Your task to perform on an android device: Add bose soundlink mini to the cart on bestbuy Image 0: 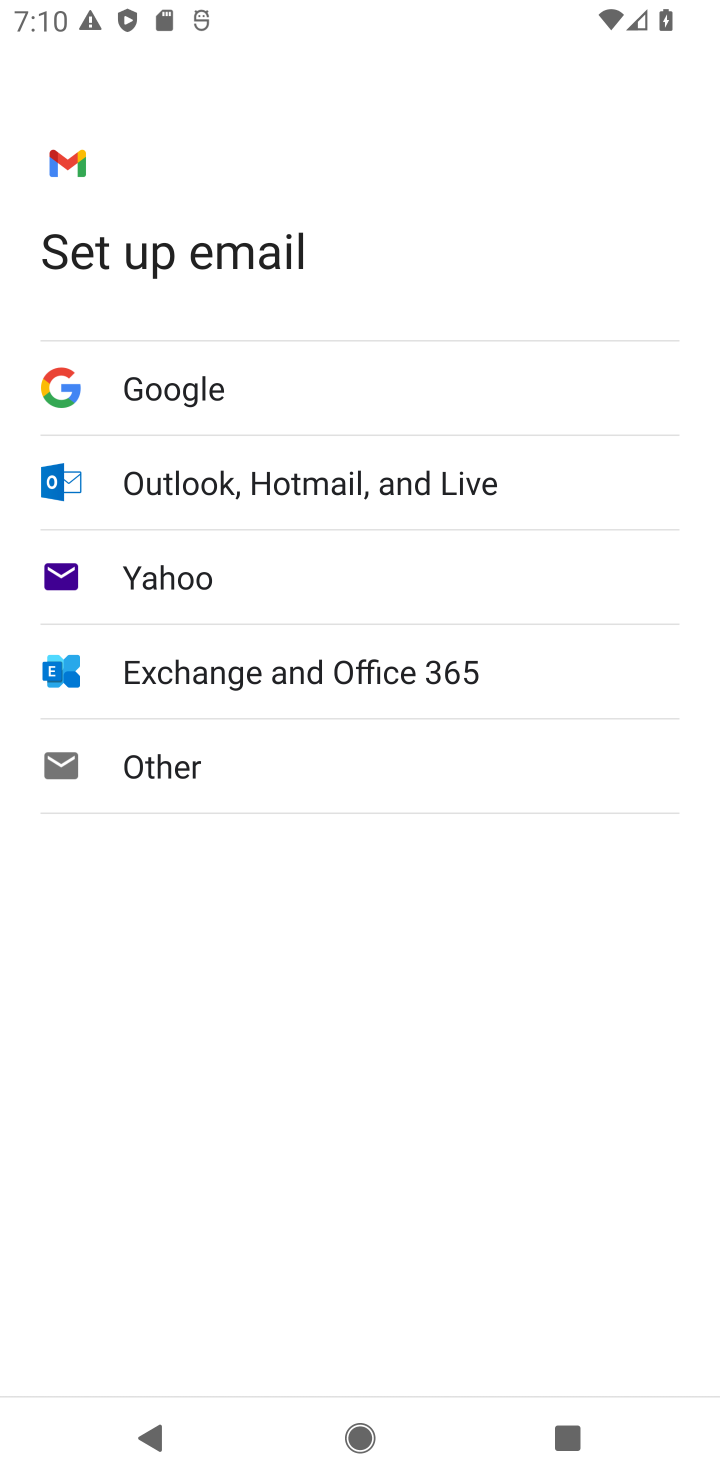
Step 0: press home button
Your task to perform on an android device: Add bose soundlink mini to the cart on bestbuy Image 1: 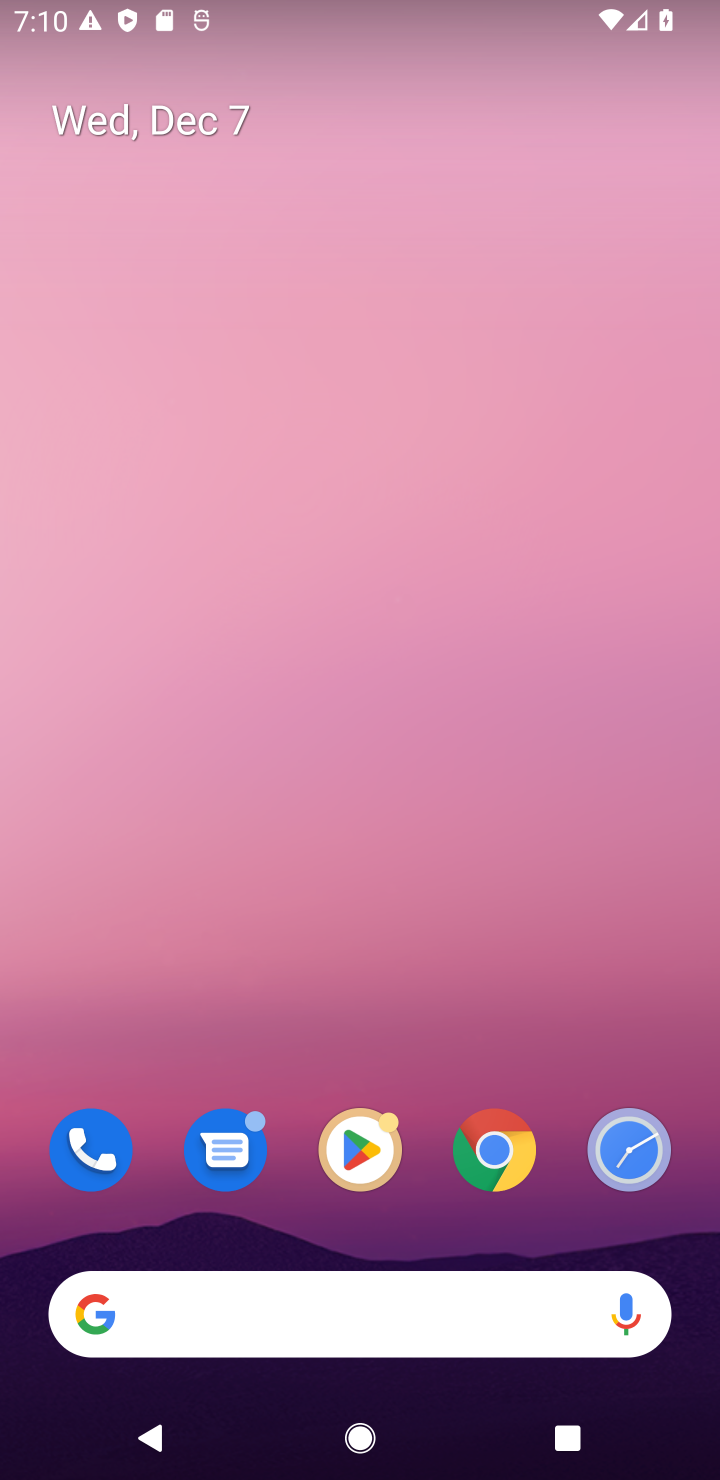
Step 1: click (490, 1150)
Your task to perform on an android device: Add bose soundlink mini to the cart on bestbuy Image 2: 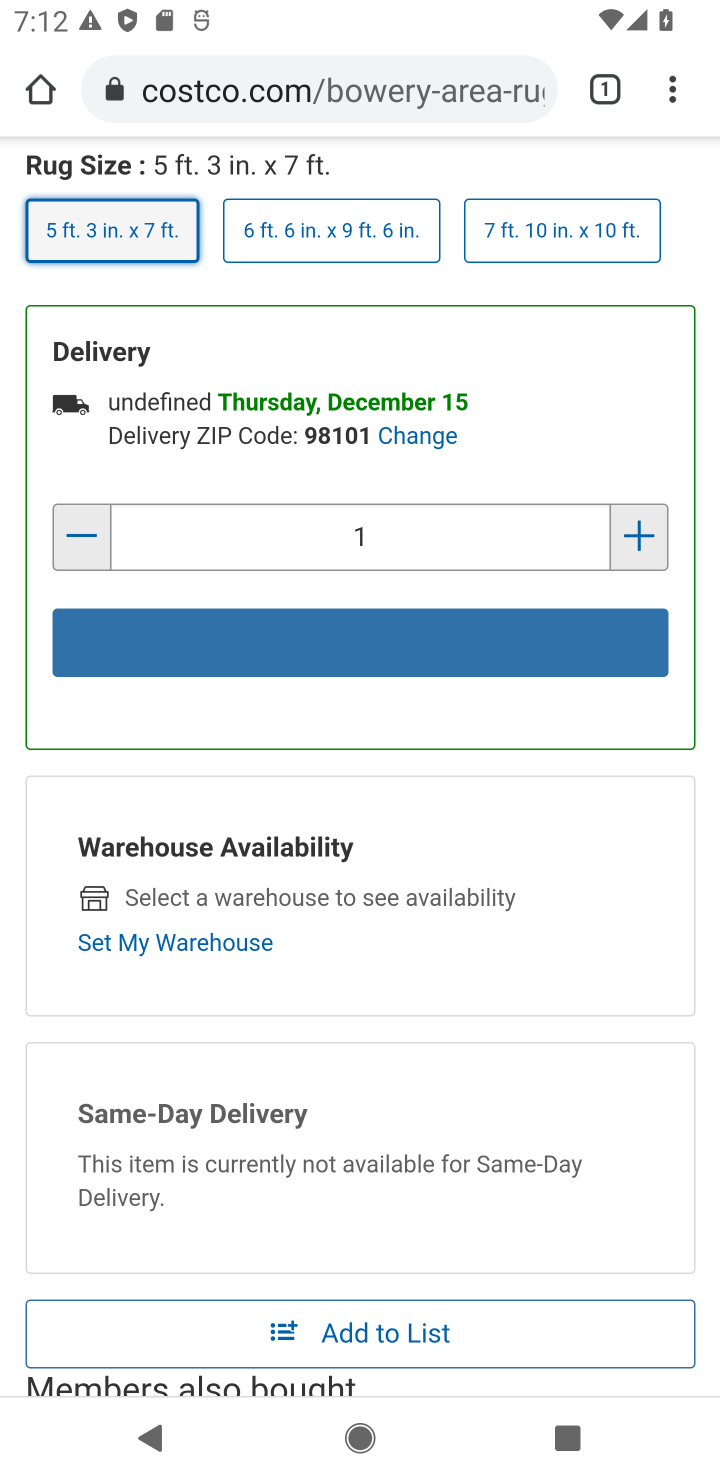
Step 2: click (334, 84)
Your task to perform on an android device: Add bose soundlink mini to the cart on bestbuy Image 3: 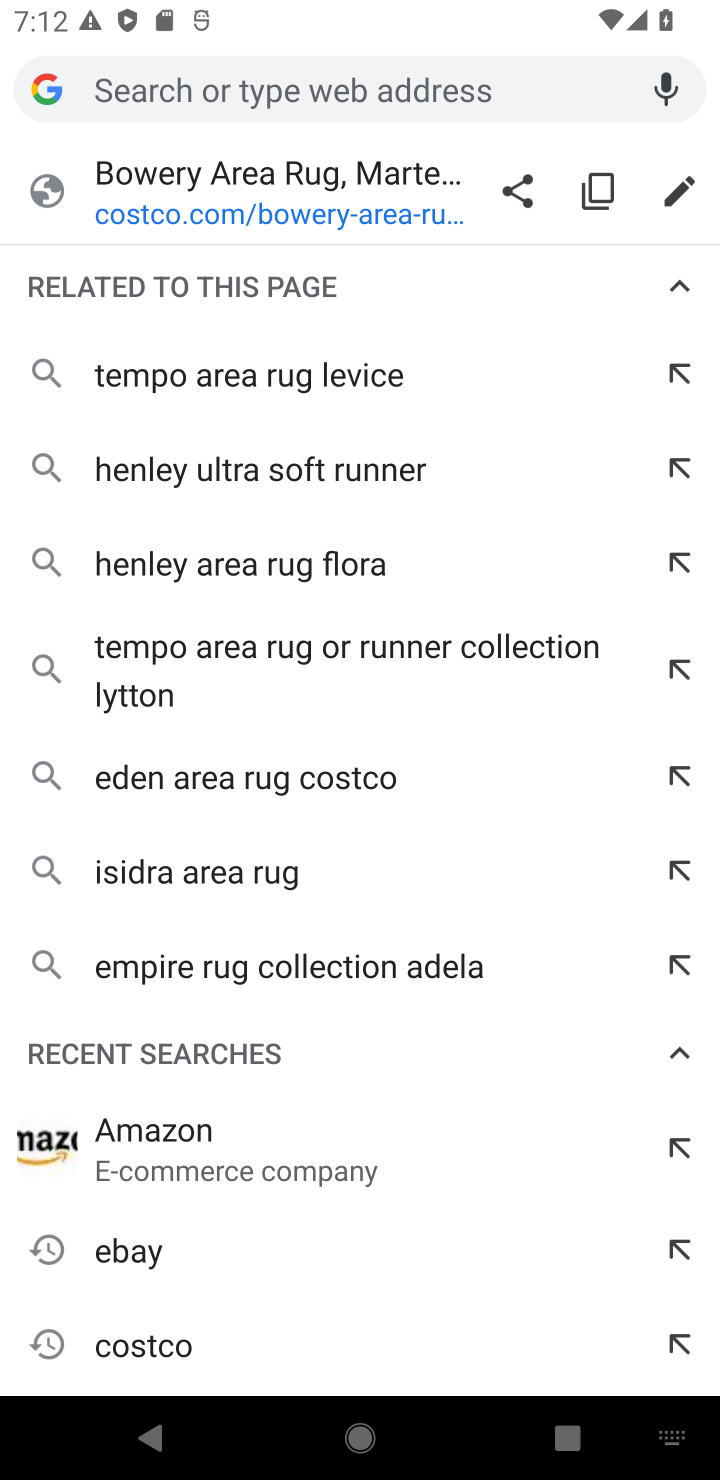
Step 3: type "bestbuy"
Your task to perform on an android device: Add bose soundlink mini to the cart on bestbuy Image 4: 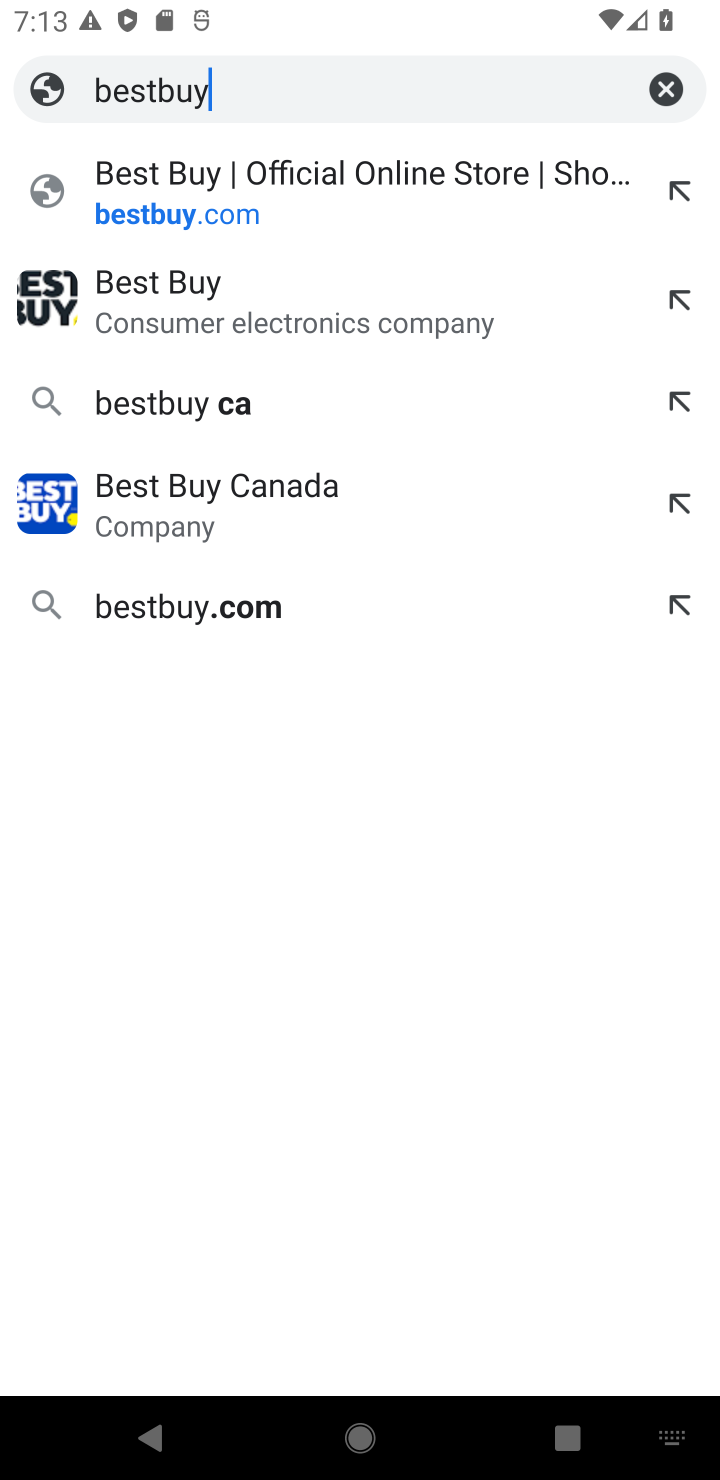
Step 4: click (131, 203)
Your task to perform on an android device: Add bose soundlink mini to the cart on bestbuy Image 5: 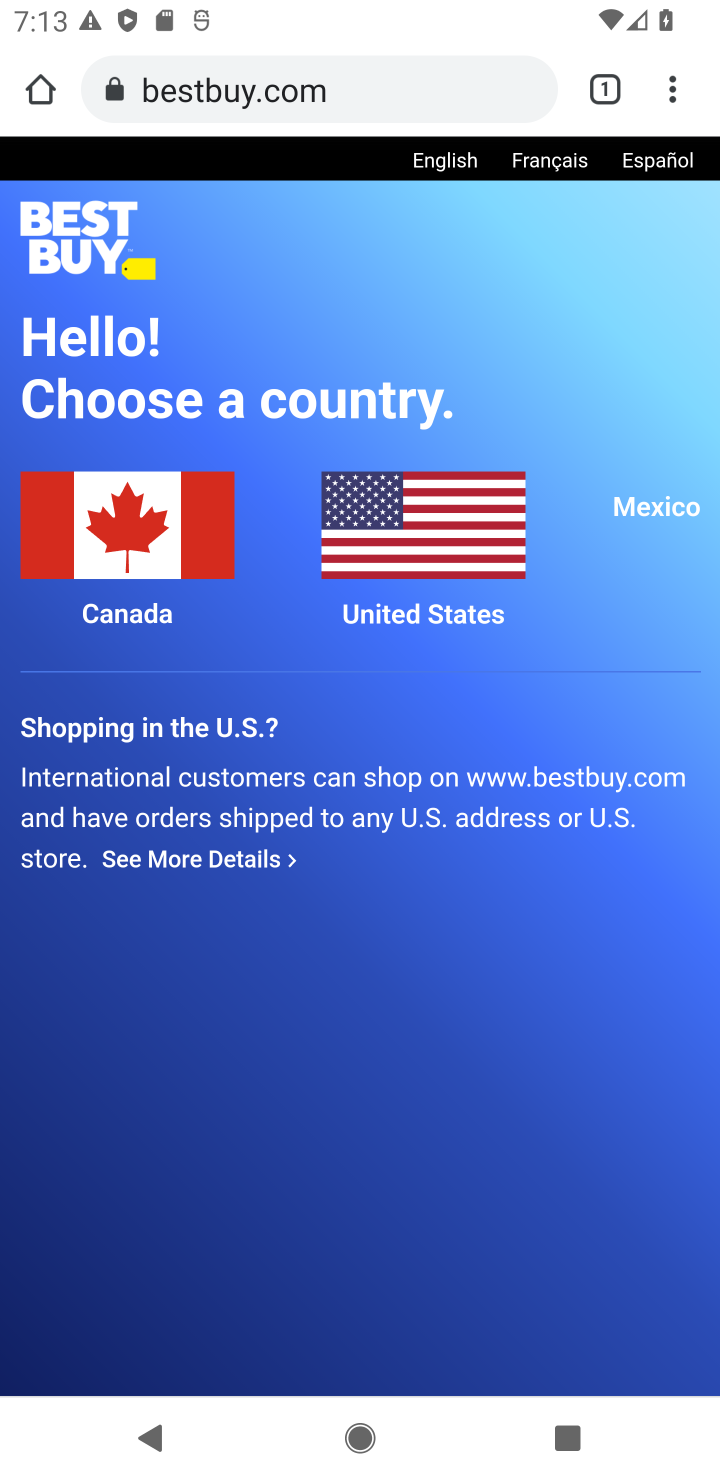
Step 5: click (432, 503)
Your task to perform on an android device: Add bose soundlink mini to the cart on bestbuy Image 6: 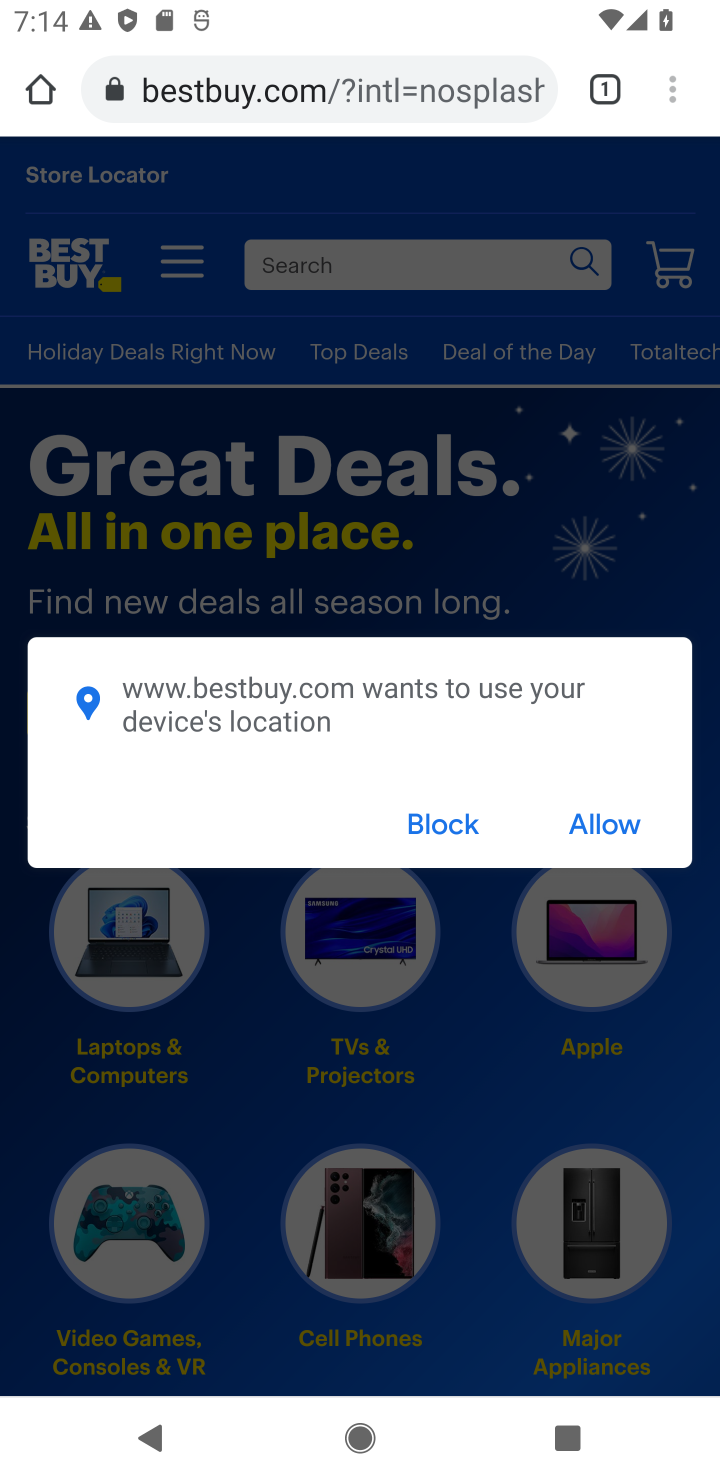
Step 6: click (440, 823)
Your task to perform on an android device: Add bose soundlink mini to the cart on bestbuy Image 7: 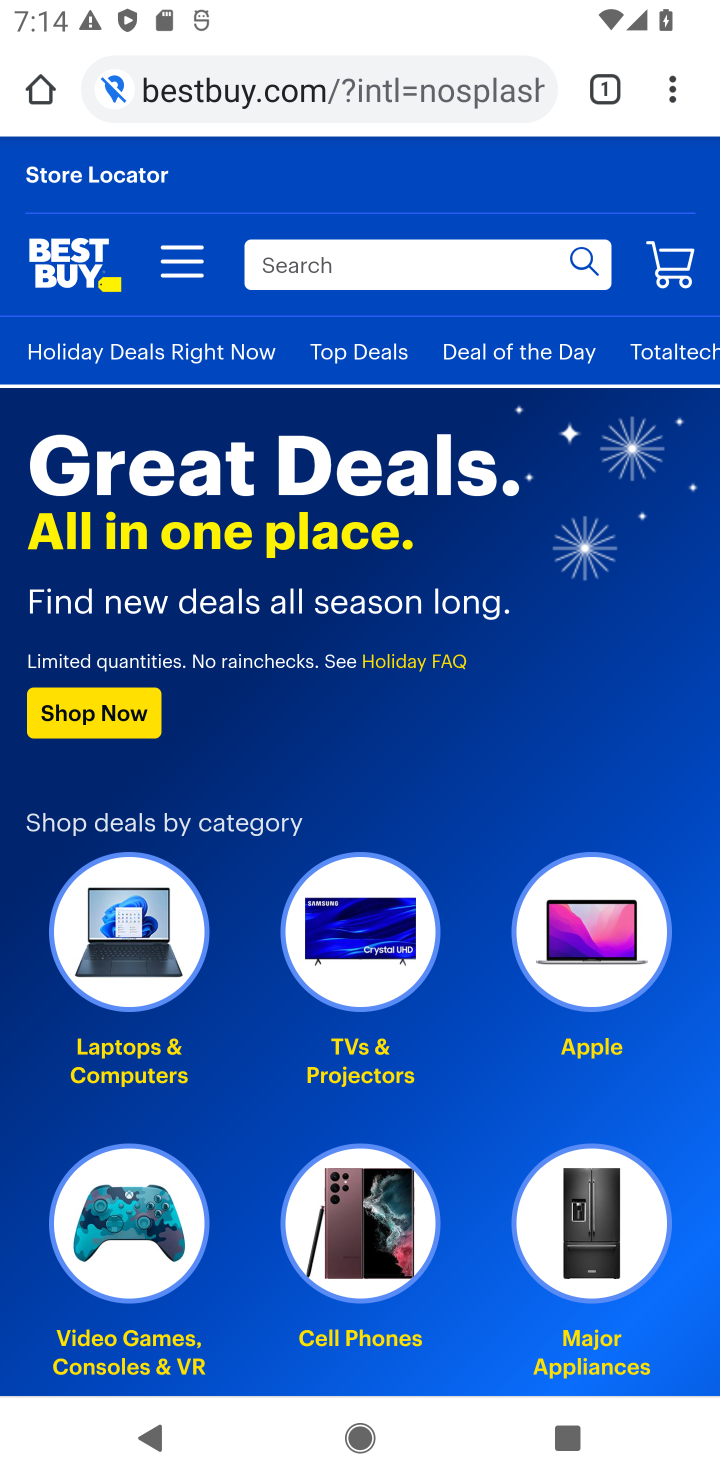
Step 7: click (363, 272)
Your task to perform on an android device: Add bose soundlink mini to the cart on bestbuy Image 8: 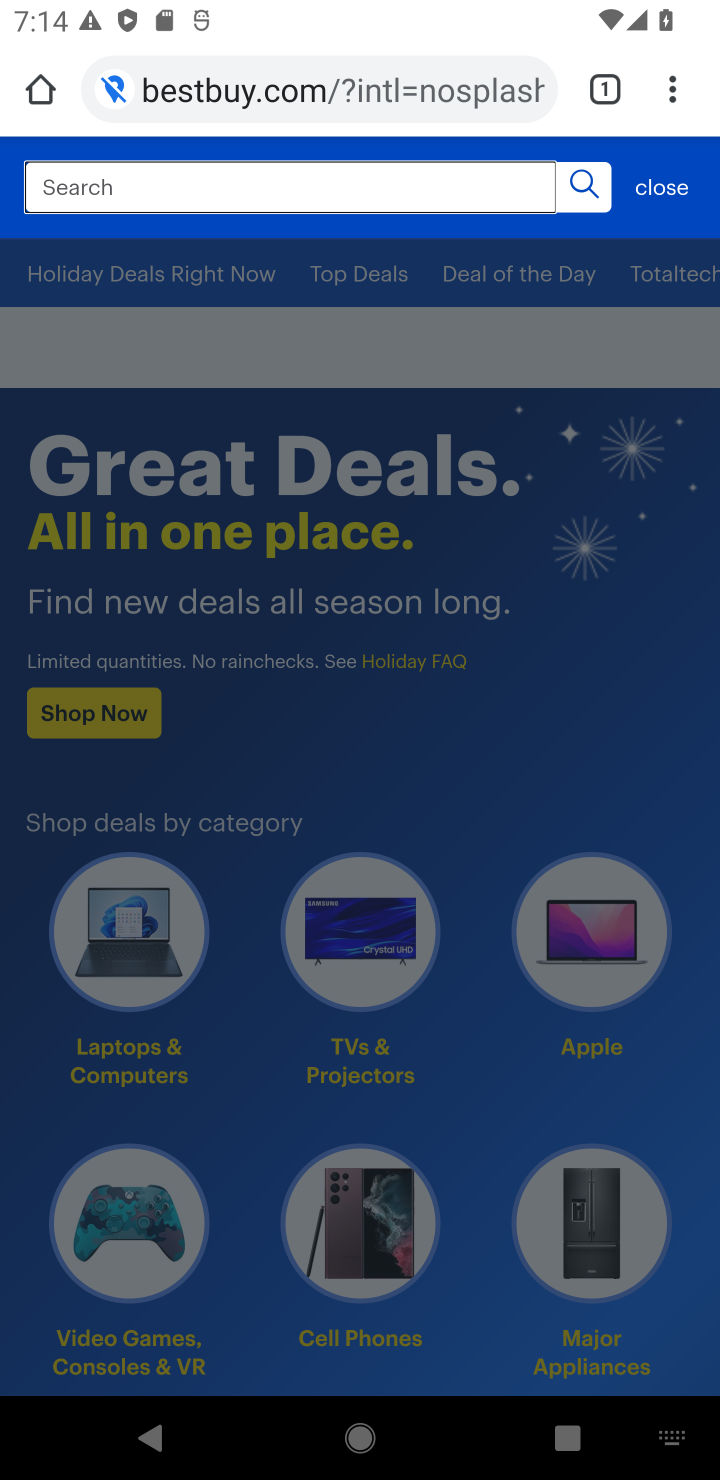
Step 8: type "bose soundlink mini"
Your task to perform on an android device: Add bose soundlink mini to the cart on bestbuy Image 9: 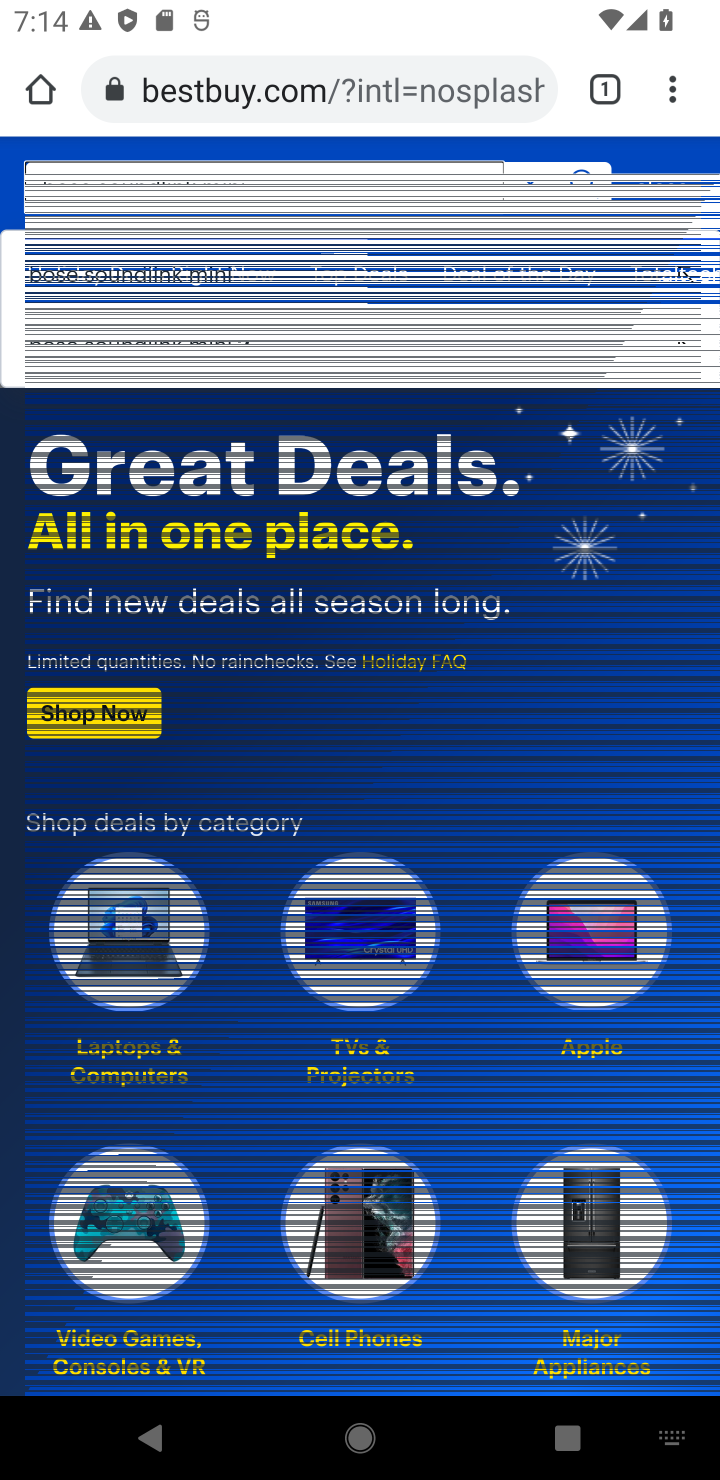
Step 9: click (61, 277)
Your task to perform on an android device: Add bose soundlink mini to the cart on bestbuy Image 10: 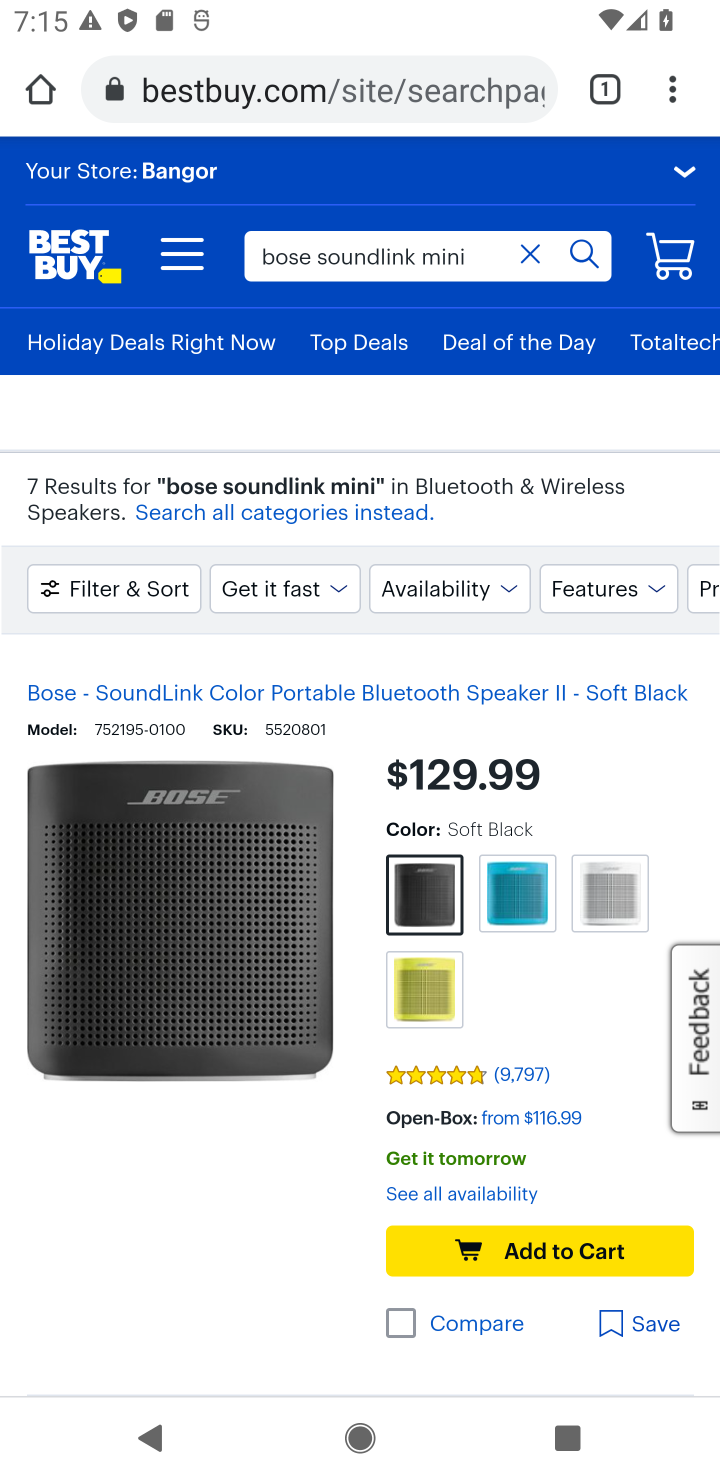
Step 10: click (514, 1244)
Your task to perform on an android device: Add bose soundlink mini to the cart on bestbuy Image 11: 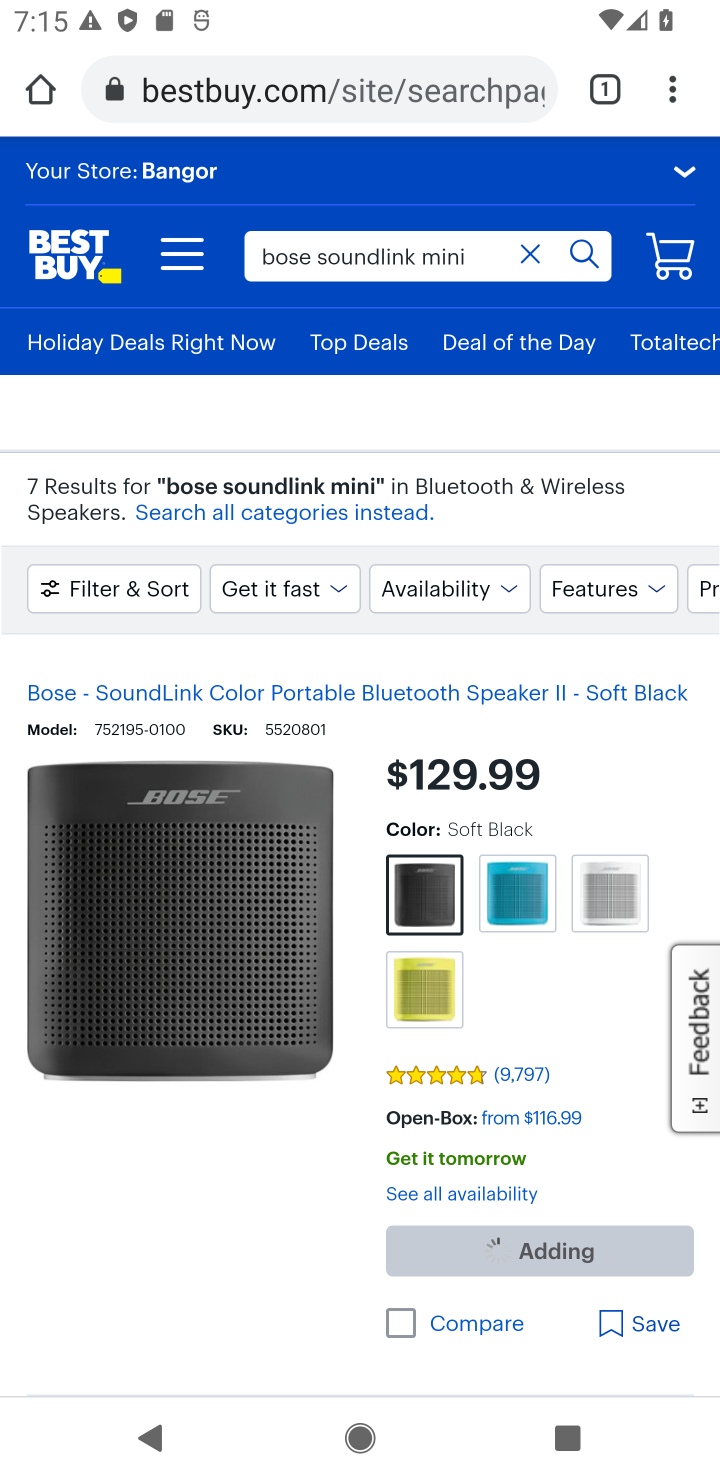
Step 11: task complete